Your task to perform on an android device: Open Android settings Image 0: 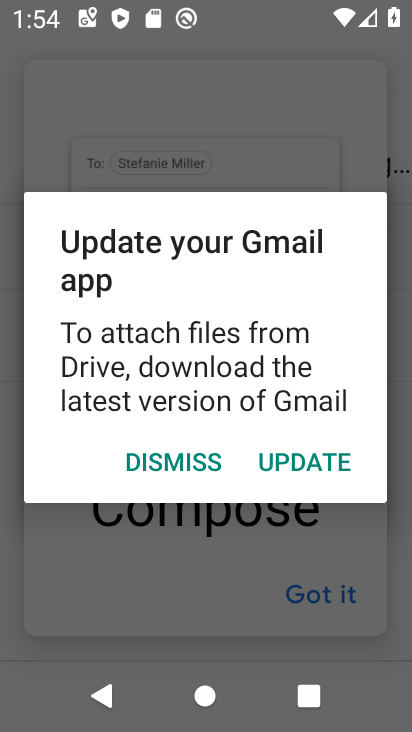
Step 0: press back button
Your task to perform on an android device: Open Android settings Image 1: 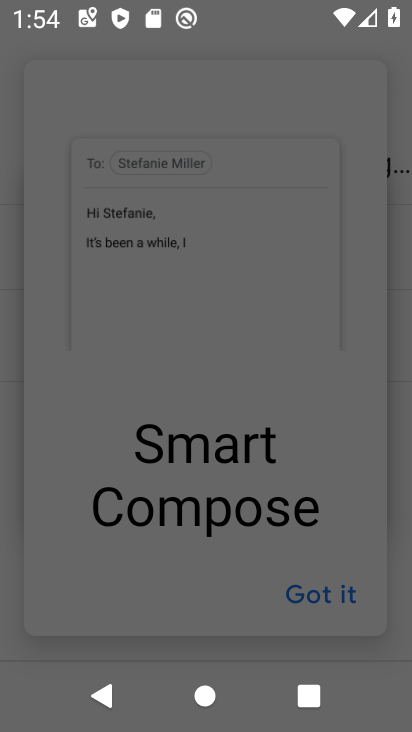
Step 1: press home button
Your task to perform on an android device: Open Android settings Image 2: 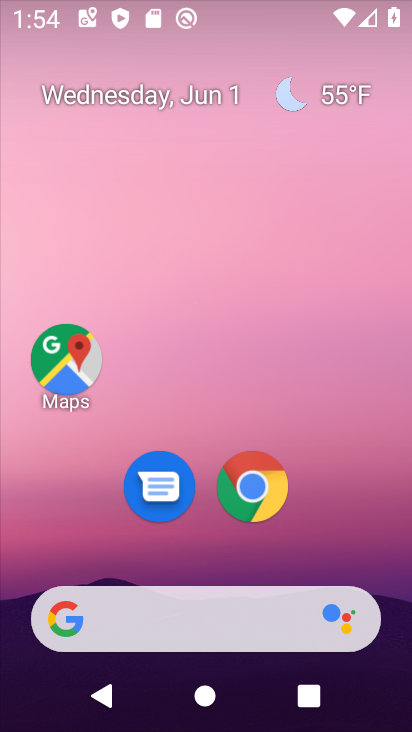
Step 2: drag from (194, 477) to (248, 8)
Your task to perform on an android device: Open Android settings Image 3: 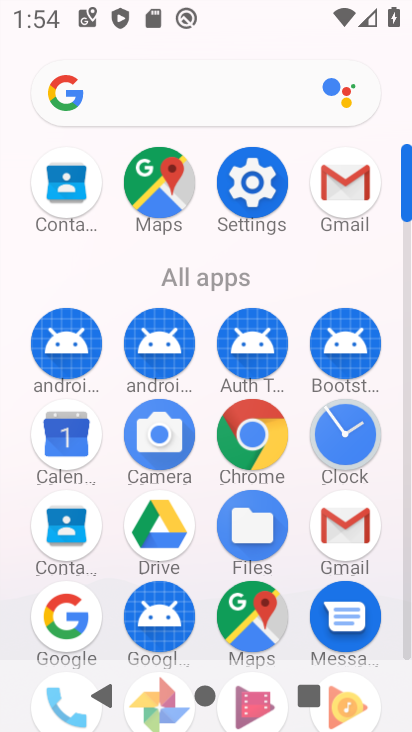
Step 3: click (249, 192)
Your task to perform on an android device: Open Android settings Image 4: 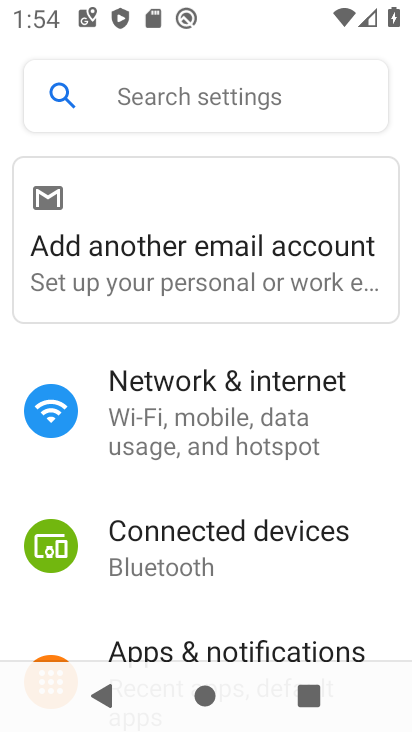
Step 4: drag from (164, 582) to (246, 83)
Your task to perform on an android device: Open Android settings Image 5: 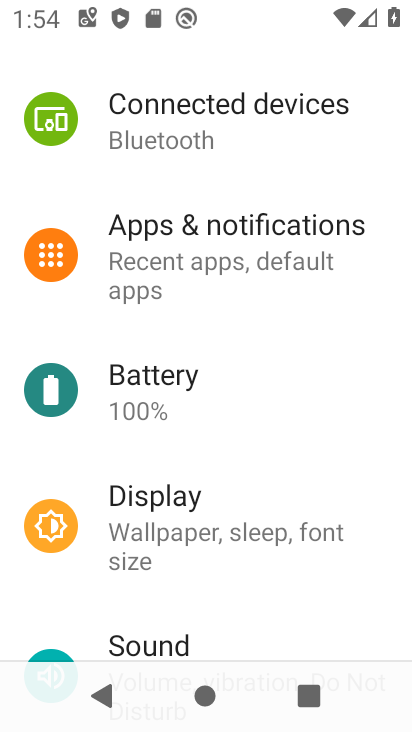
Step 5: drag from (195, 590) to (274, 61)
Your task to perform on an android device: Open Android settings Image 6: 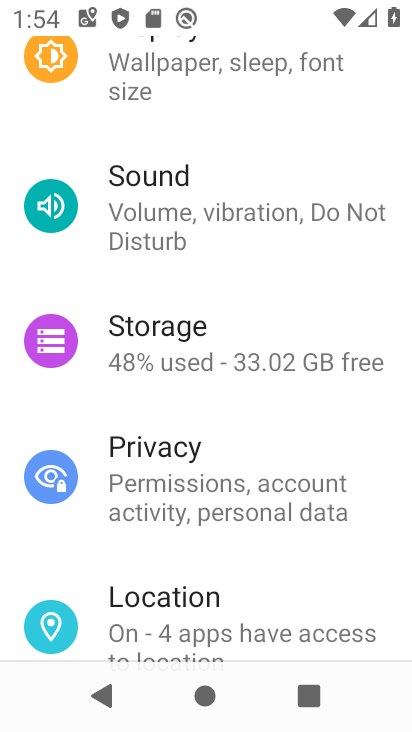
Step 6: drag from (186, 587) to (261, 41)
Your task to perform on an android device: Open Android settings Image 7: 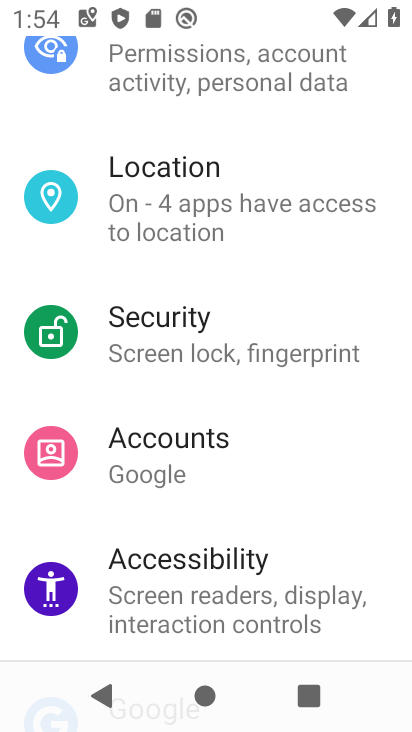
Step 7: drag from (211, 605) to (262, 64)
Your task to perform on an android device: Open Android settings Image 8: 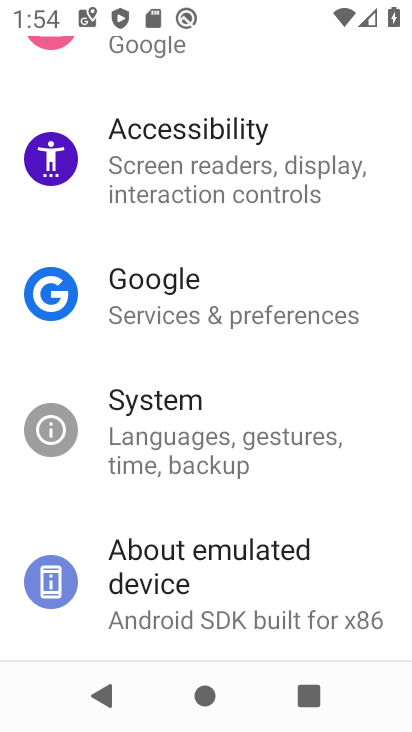
Step 8: drag from (223, 606) to (289, 84)
Your task to perform on an android device: Open Android settings Image 9: 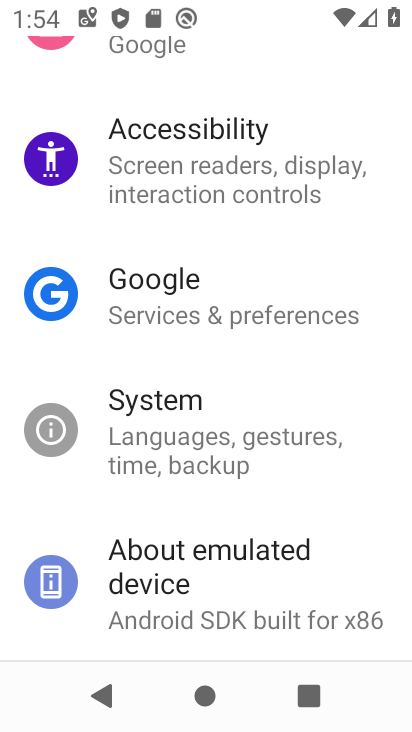
Step 9: click (165, 578)
Your task to perform on an android device: Open Android settings Image 10: 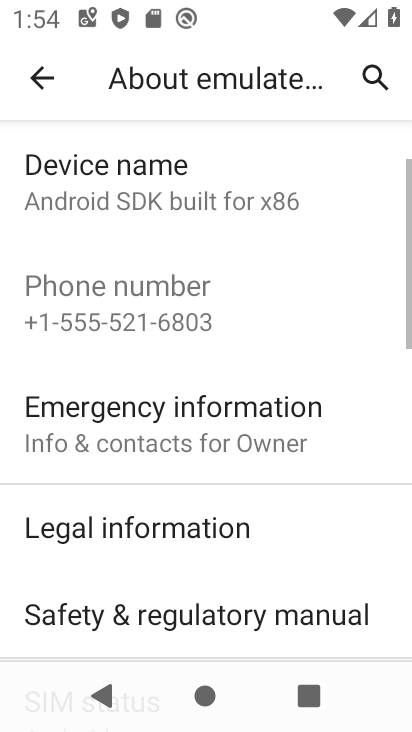
Step 10: drag from (171, 543) to (239, 107)
Your task to perform on an android device: Open Android settings Image 11: 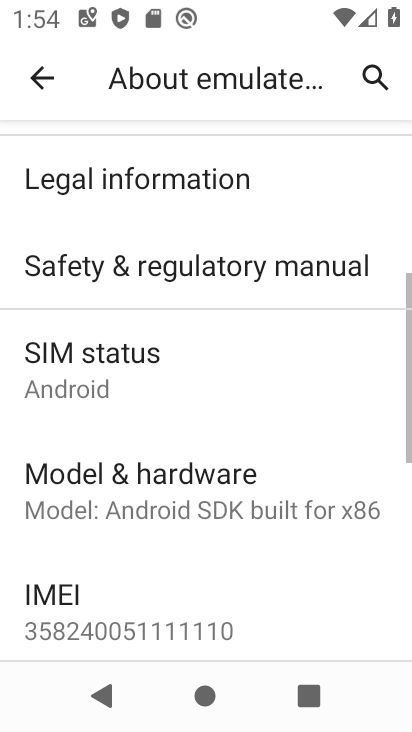
Step 11: drag from (170, 573) to (244, 108)
Your task to perform on an android device: Open Android settings Image 12: 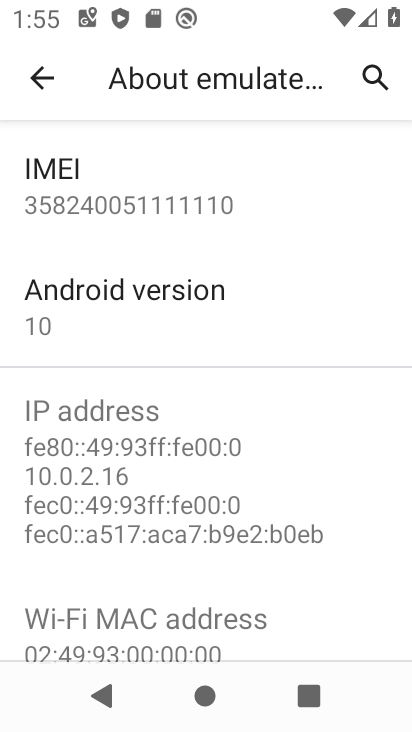
Step 12: click (136, 303)
Your task to perform on an android device: Open Android settings Image 13: 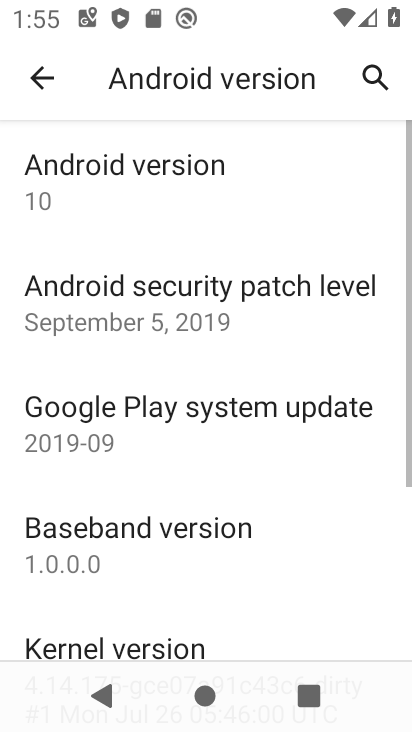
Step 13: task complete